Your task to perform on an android device: turn smart compose on in the gmail app Image 0: 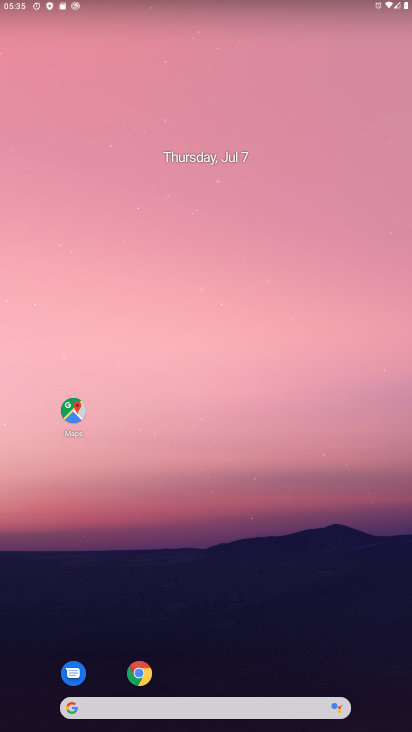
Step 0: drag from (309, 727) to (275, 62)
Your task to perform on an android device: turn smart compose on in the gmail app Image 1: 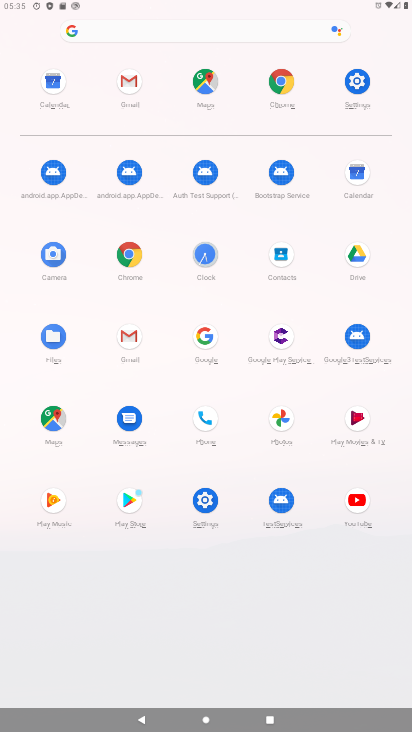
Step 1: click (130, 338)
Your task to perform on an android device: turn smart compose on in the gmail app Image 2: 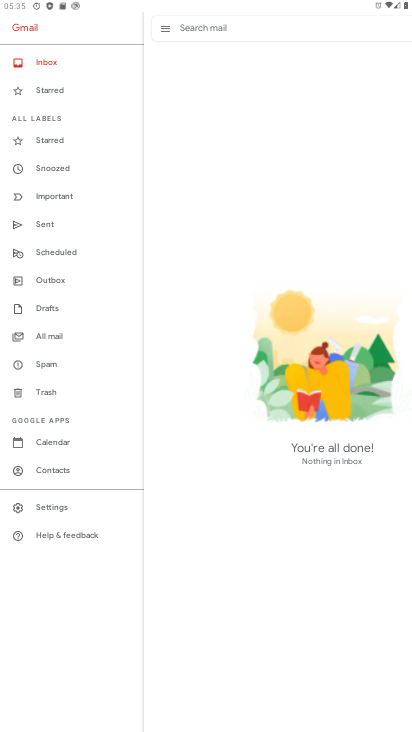
Step 2: click (71, 506)
Your task to perform on an android device: turn smart compose on in the gmail app Image 3: 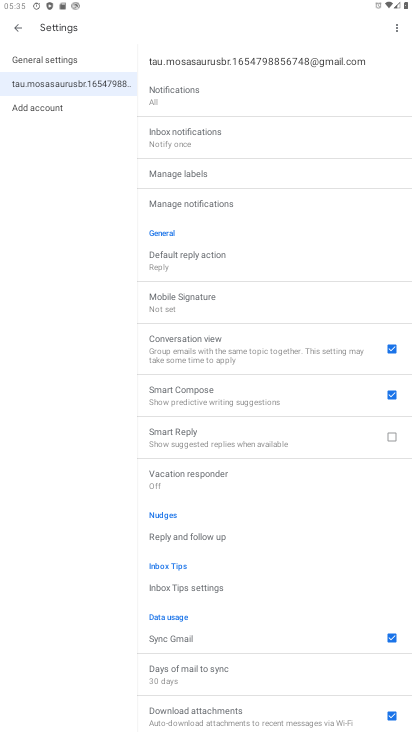
Step 3: task complete